Your task to perform on an android device: Open sound settings Image 0: 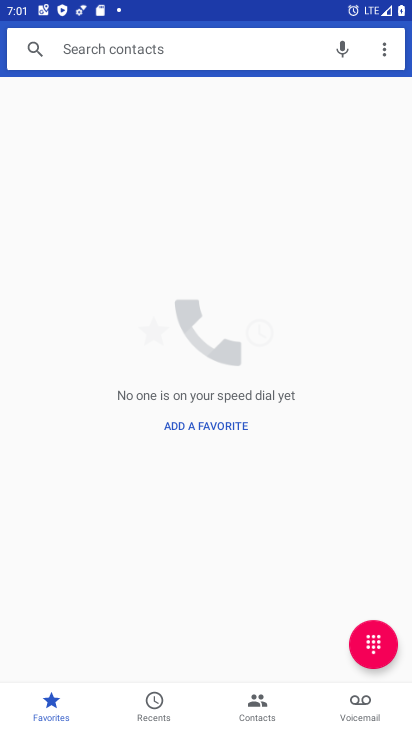
Step 0: press home button
Your task to perform on an android device: Open sound settings Image 1: 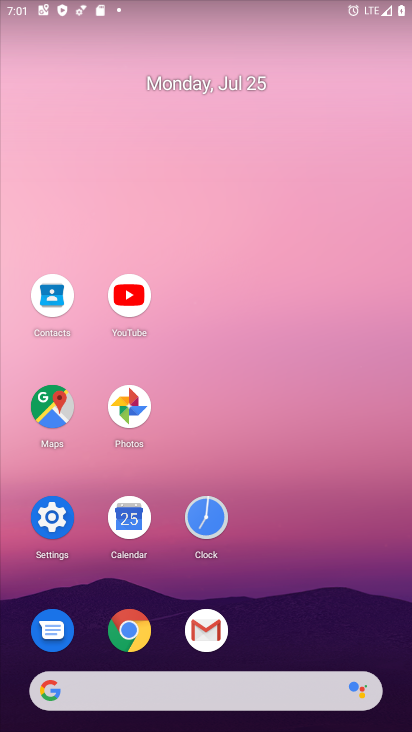
Step 1: click (45, 518)
Your task to perform on an android device: Open sound settings Image 2: 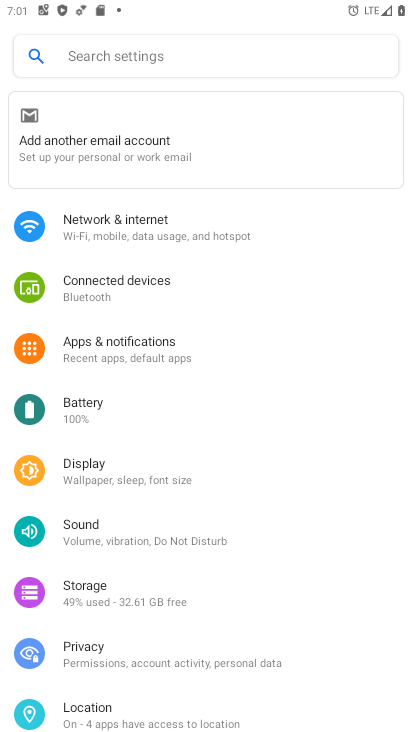
Step 2: click (80, 530)
Your task to perform on an android device: Open sound settings Image 3: 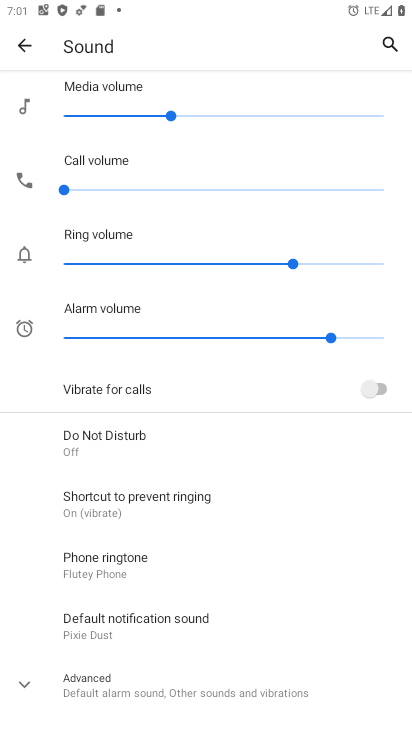
Step 3: task complete